Your task to perform on an android device: check android version Image 0: 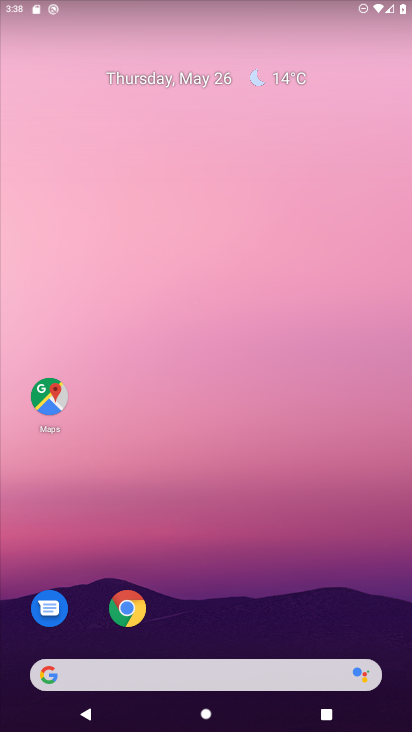
Step 0: drag from (313, 572) to (372, 69)
Your task to perform on an android device: check android version Image 1: 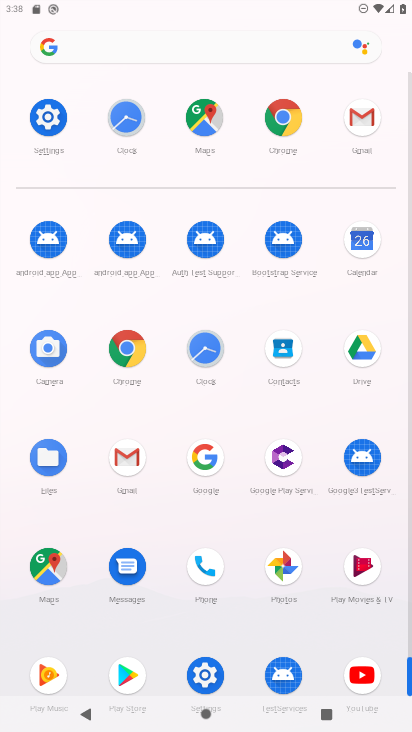
Step 1: click (53, 128)
Your task to perform on an android device: check android version Image 2: 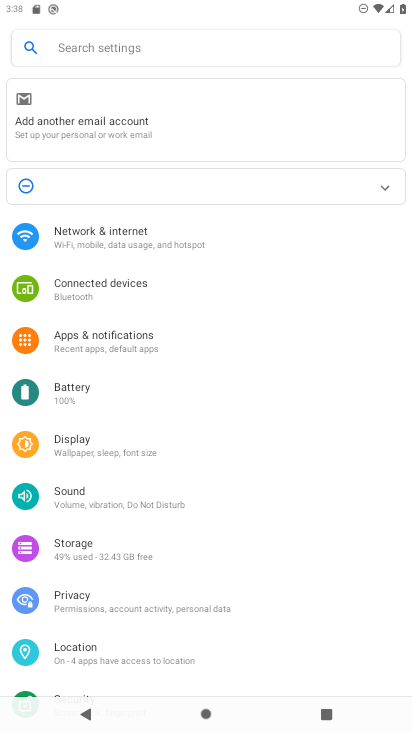
Step 2: drag from (120, 492) to (192, 185)
Your task to perform on an android device: check android version Image 3: 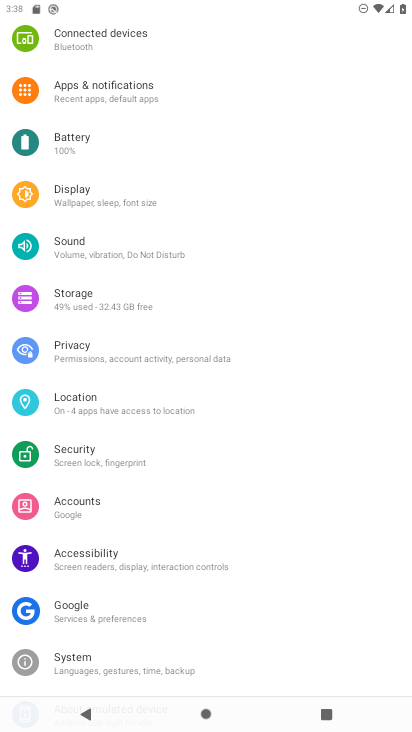
Step 3: drag from (153, 587) to (246, 222)
Your task to perform on an android device: check android version Image 4: 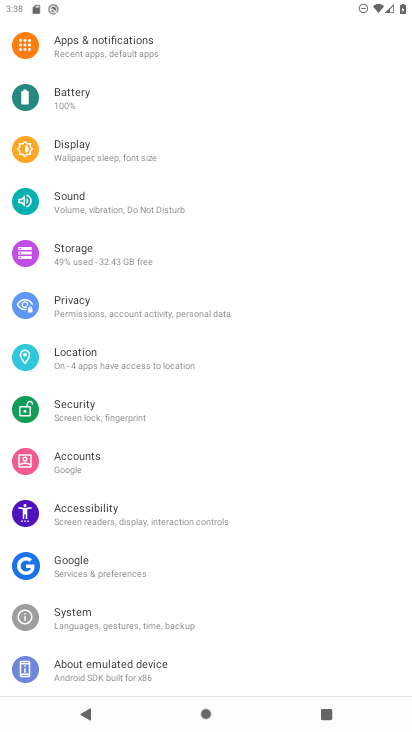
Step 4: drag from (193, 550) to (250, 231)
Your task to perform on an android device: check android version Image 5: 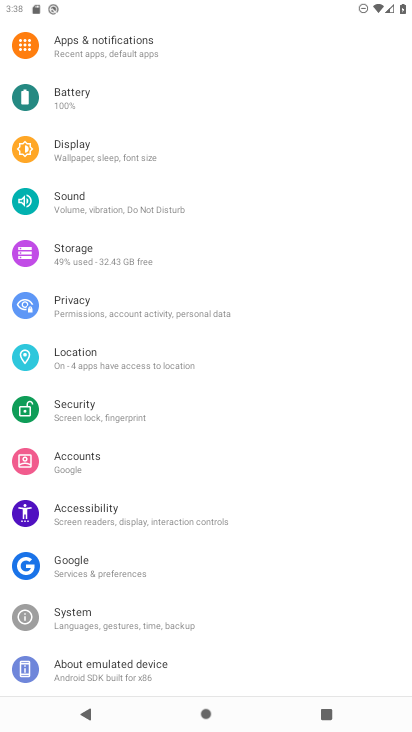
Step 5: click (121, 669)
Your task to perform on an android device: check android version Image 6: 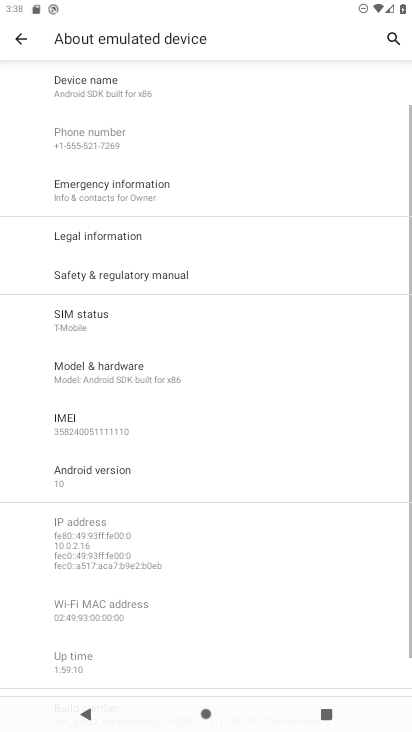
Step 6: click (89, 459)
Your task to perform on an android device: check android version Image 7: 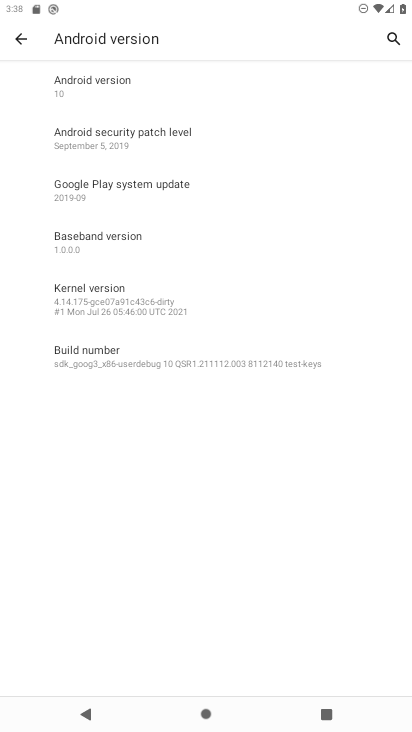
Step 7: click (100, 96)
Your task to perform on an android device: check android version Image 8: 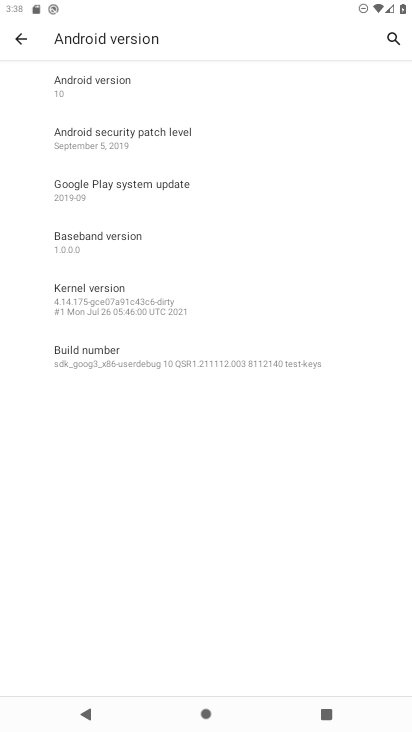
Step 8: task complete